Your task to perform on an android device: Is it going to rain tomorrow? Image 0: 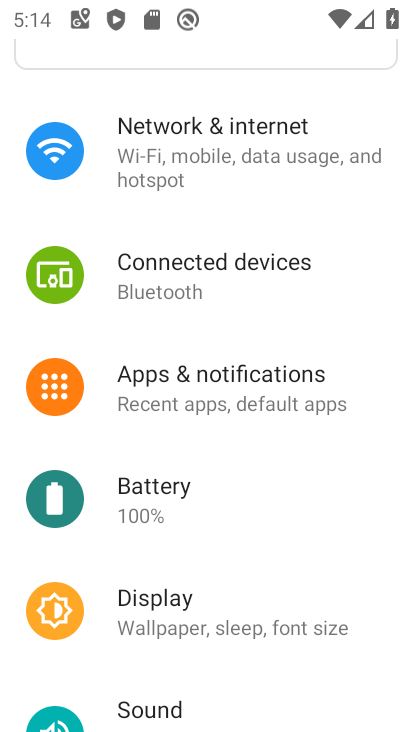
Step 0: press home button
Your task to perform on an android device: Is it going to rain tomorrow? Image 1: 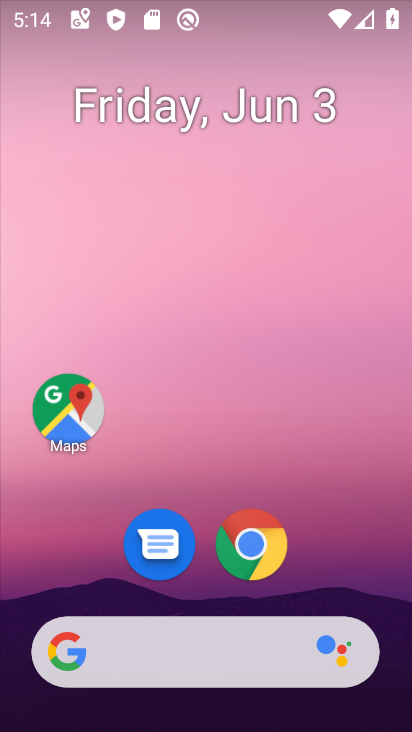
Step 1: drag from (332, 565) to (376, 75)
Your task to perform on an android device: Is it going to rain tomorrow? Image 2: 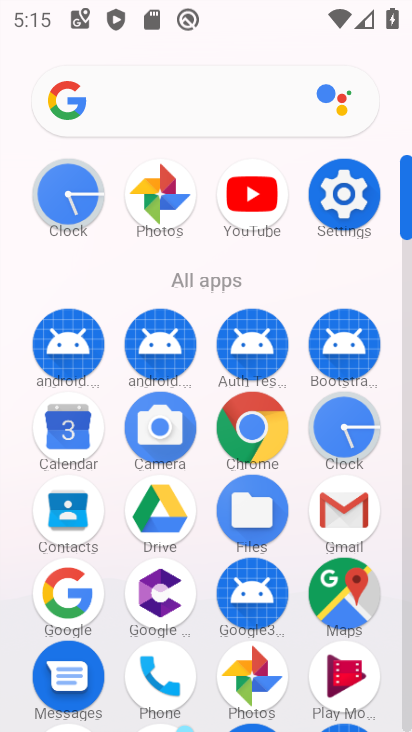
Step 2: click (63, 428)
Your task to perform on an android device: Is it going to rain tomorrow? Image 3: 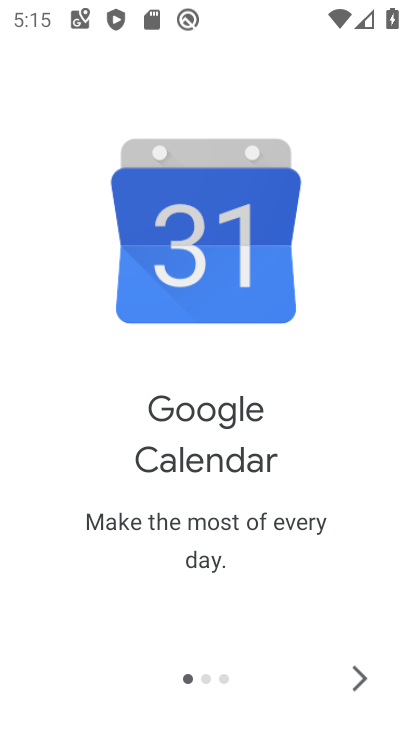
Step 3: click (358, 669)
Your task to perform on an android device: Is it going to rain tomorrow? Image 4: 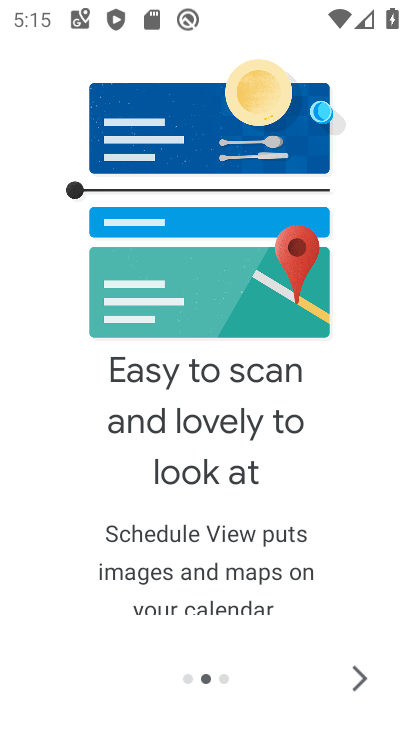
Step 4: click (358, 669)
Your task to perform on an android device: Is it going to rain tomorrow? Image 5: 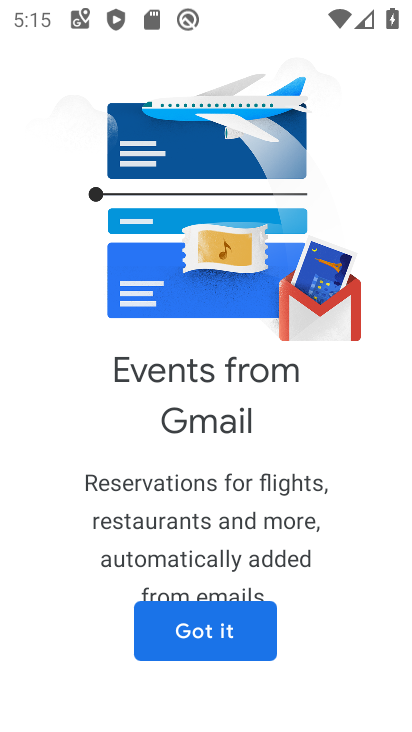
Step 5: click (240, 620)
Your task to perform on an android device: Is it going to rain tomorrow? Image 6: 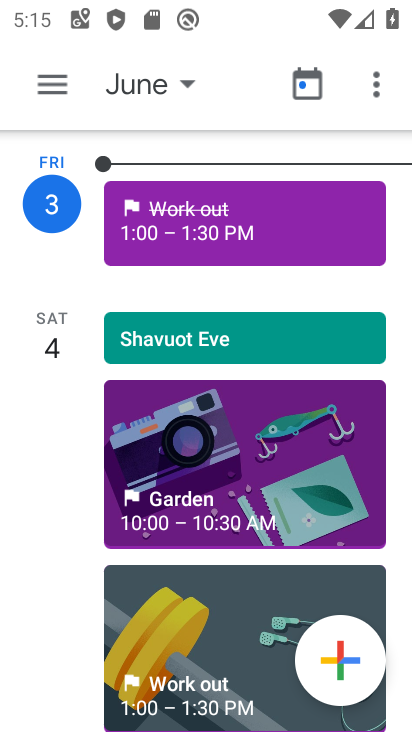
Step 6: click (142, 84)
Your task to perform on an android device: Is it going to rain tomorrow? Image 7: 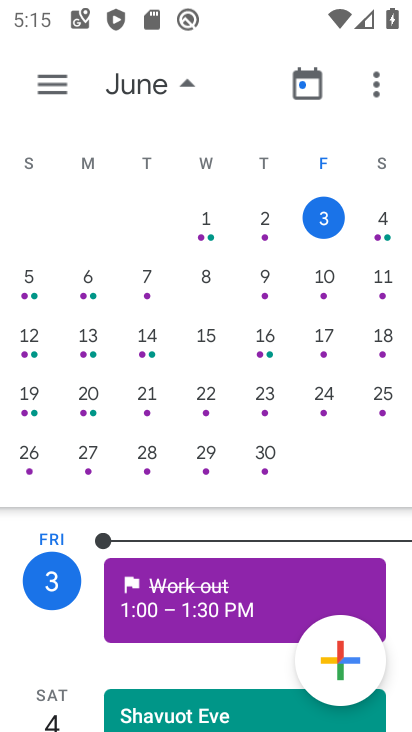
Step 7: click (384, 222)
Your task to perform on an android device: Is it going to rain tomorrow? Image 8: 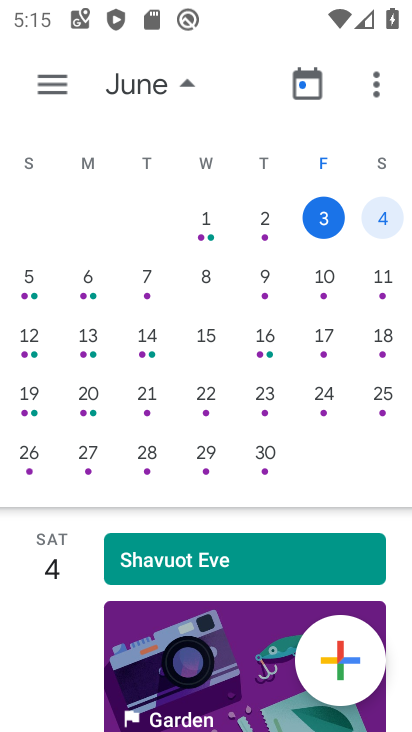
Step 8: task complete